Your task to perform on an android device: find which apps use the phone's location Image 0: 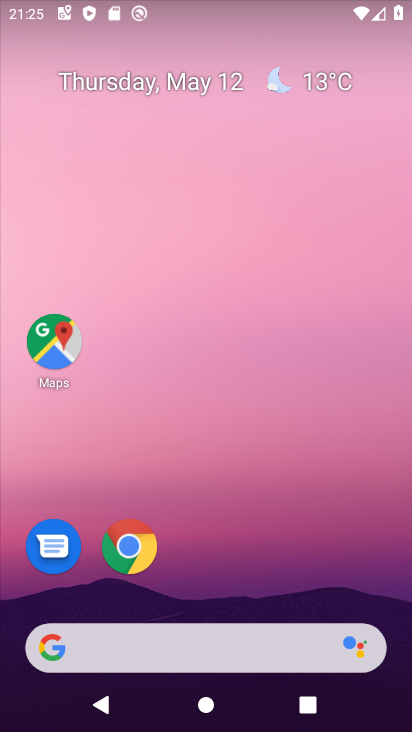
Step 0: drag from (220, 570) to (243, 79)
Your task to perform on an android device: find which apps use the phone's location Image 1: 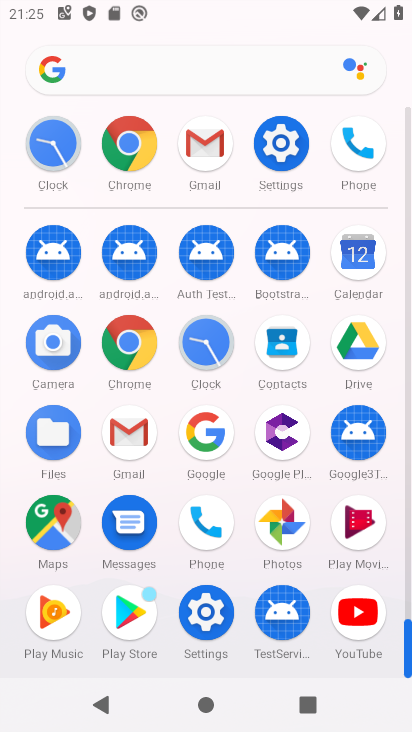
Step 1: click (206, 518)
Your task to perform on an android device: find which apps use the phone's location Image 2: 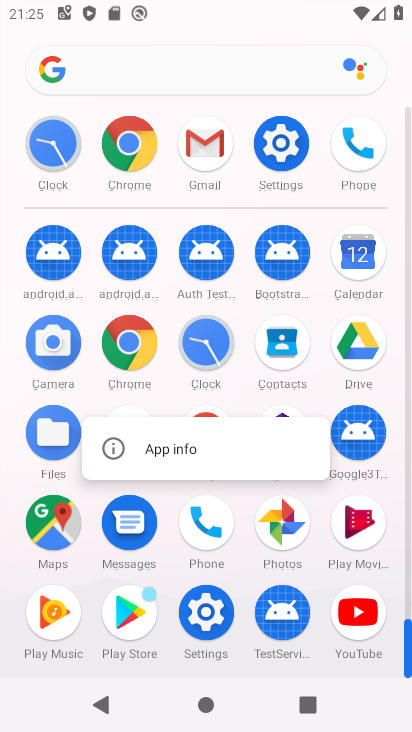
Step 2: click (194, 455)
Your task to perform on an android device: find which apps use the phone's location Image 3: 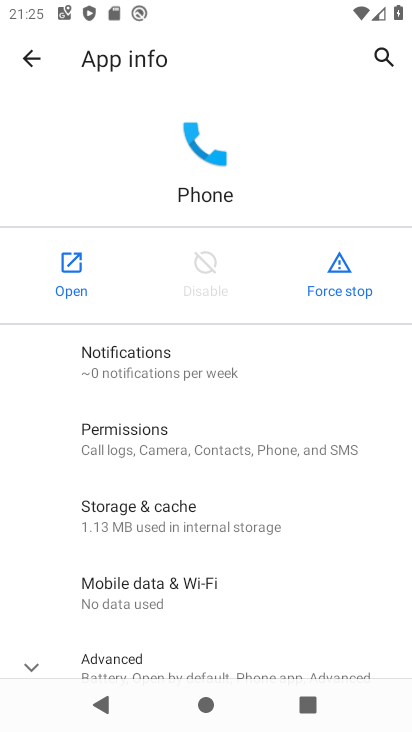
Step 3: click (148, 447)
Your task to perform on an android device: find which apps use the phone's location Image 4: 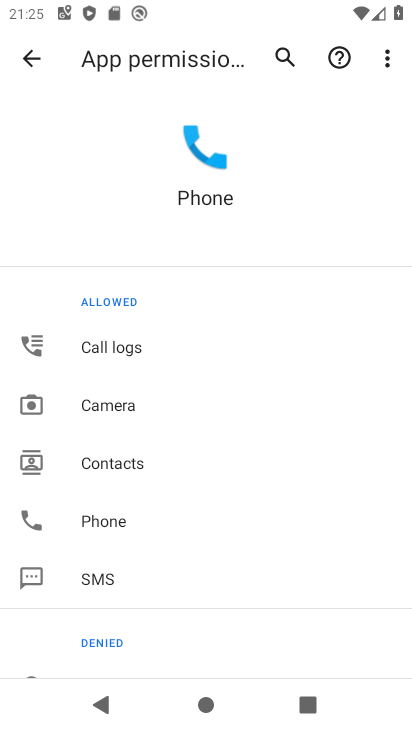
Step 4: drag from (159, 545) to (206, 239)
Your task to perform on an android device: find which apps use the phone's location Image 5: 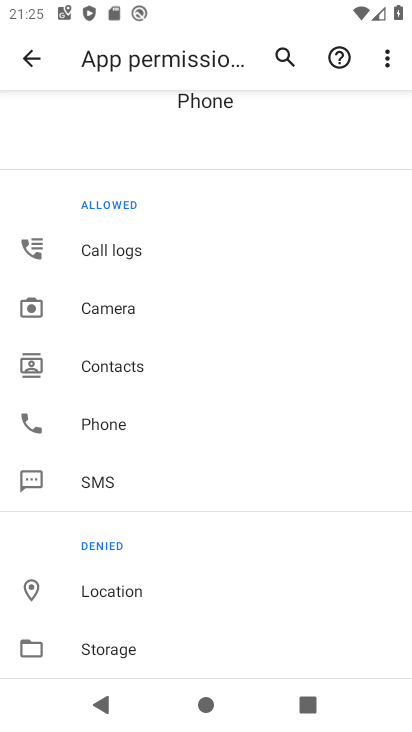
Step 5: click (122, 588)
Your task to perform on an android device: find which apps use the phone's location Image 6: 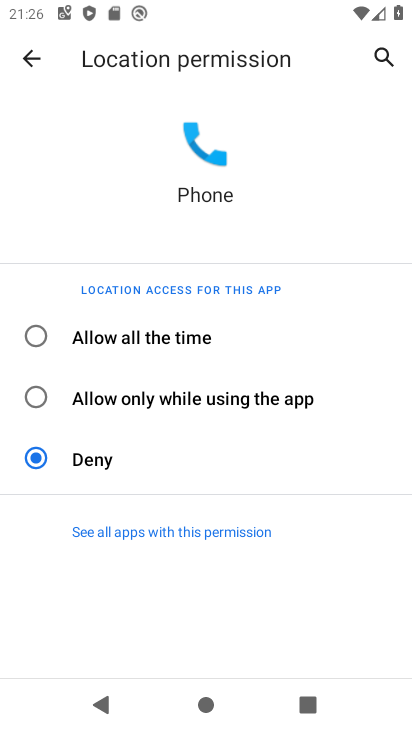
Step 6: task complete